Your task to perform on an android device: add a contact Image 0: 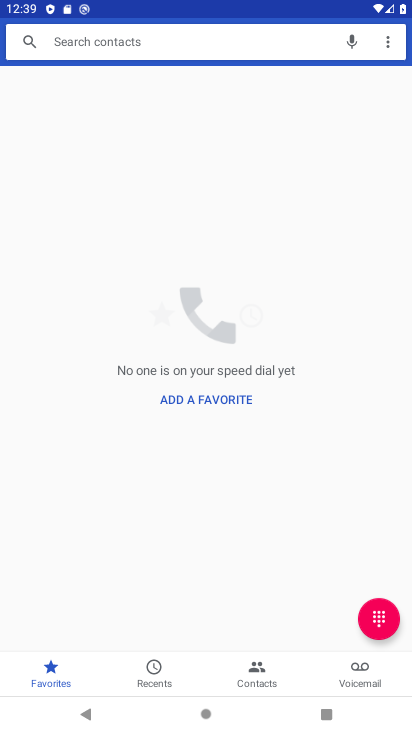
Step 0: press back button
Your task to perform on an android device: add a contact Image 1: 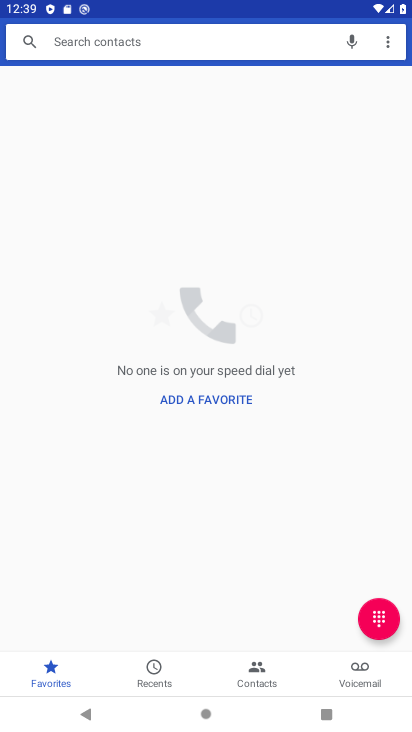
Step 1: press back button
Your task to perform on an android device: add a contact Image 2: 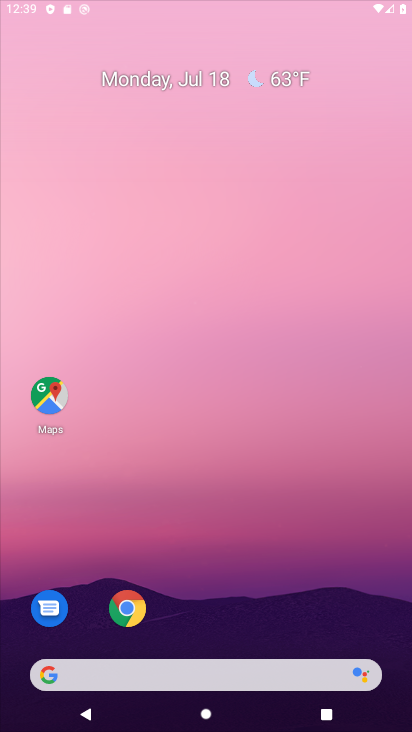
Step 2: press back button
Your task to perform on an android device: add a contact Image 3: 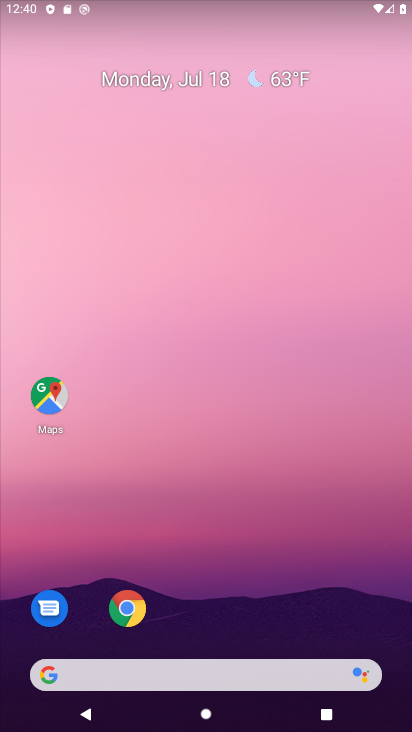
Step 3: drag from (251, 631) to (152, 69)
Your task to perform on an android device: add a contact Image 4: 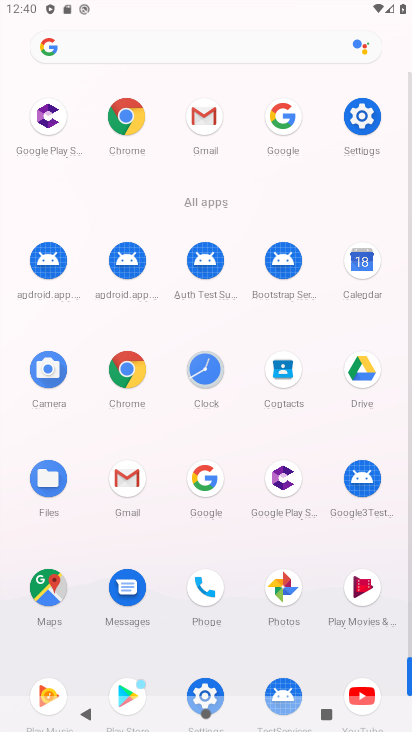
Step 4: drag from (174, 625) to (226, 78)
Your task to perform on an android device: add a contact Image 5: 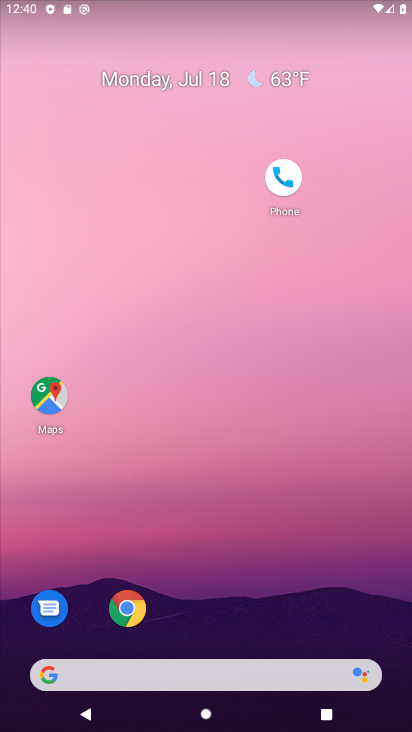
Step 5: drag from (152, 6) to (178, 78)
Your task to perform on an android device: add a contact Image 6: 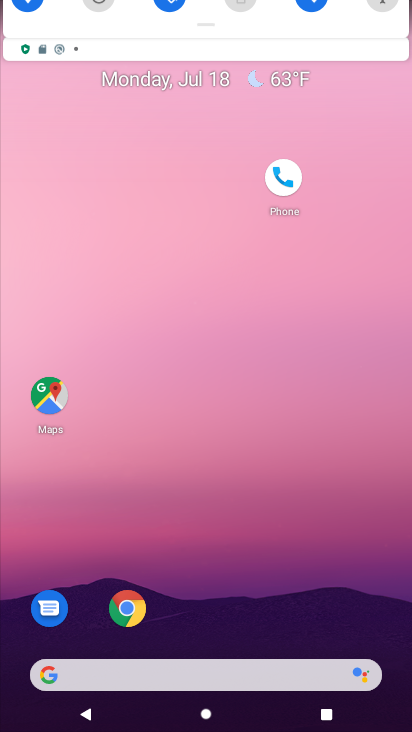
Step 6: drag from (159, 592) to (109, 168)
Your task to perform on an android device: add a contact Image 7: 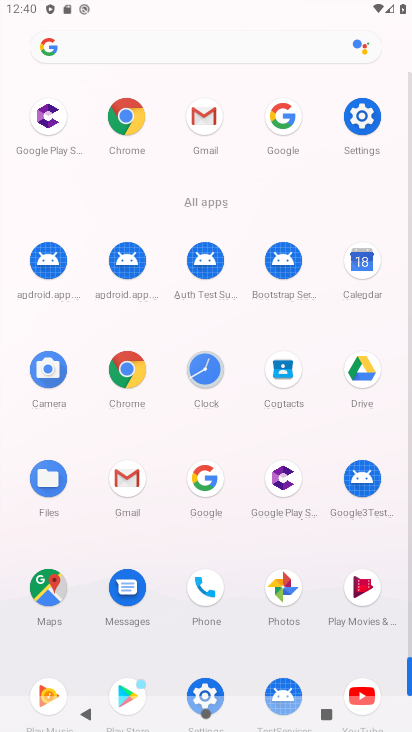
Step 7: click (293, 382)
Your task to perform on an android device: add a contact Image 8: 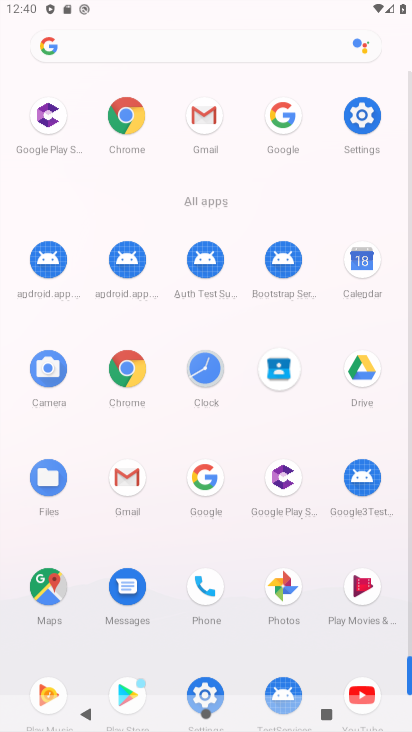
Step 8: drag from (122, 163) to (186, 84)
Your task to perform on an android device: add a contact Image 9: 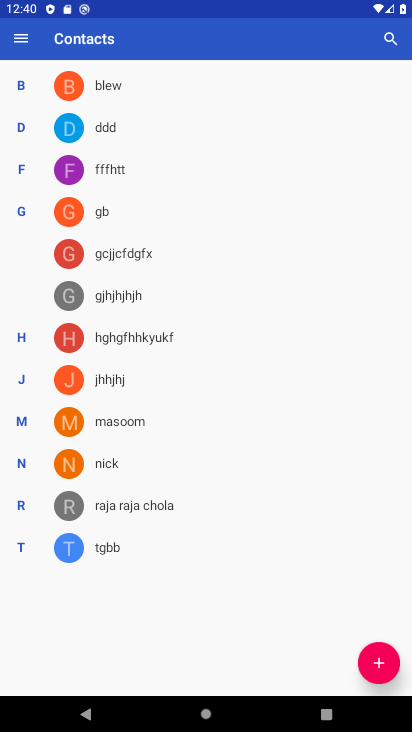
Step 9: click (123, 290)
Your task to perform on an android device: add a contact Image 10: 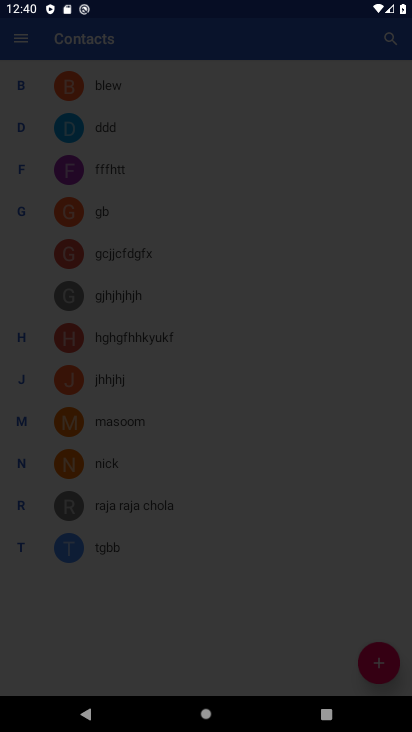
Step 10: click (240, 120)
Your task to perform on an android device: add a contact Image 11: 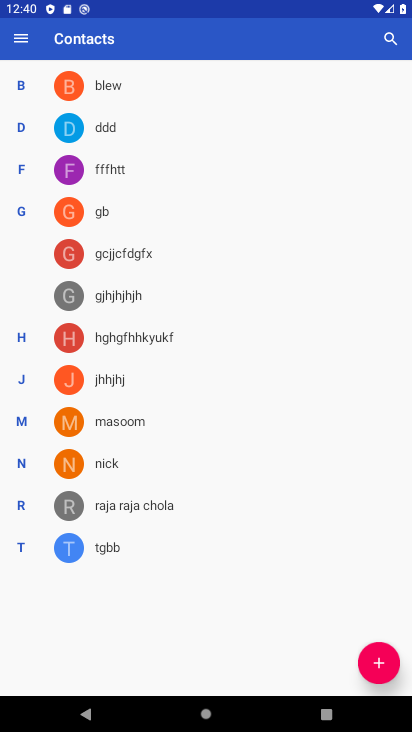
Step 11: click (280, 373)
Your task to perform on an android device: add a contact Image 12: 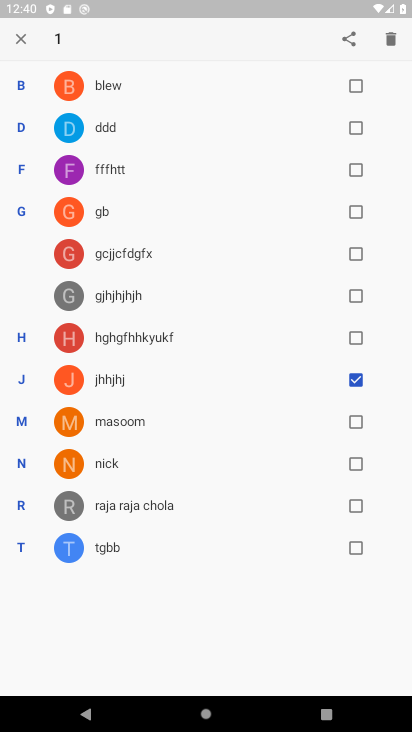
Step 12: click (290, 373)
Your task to perform on an android device: add a contact Image 13: 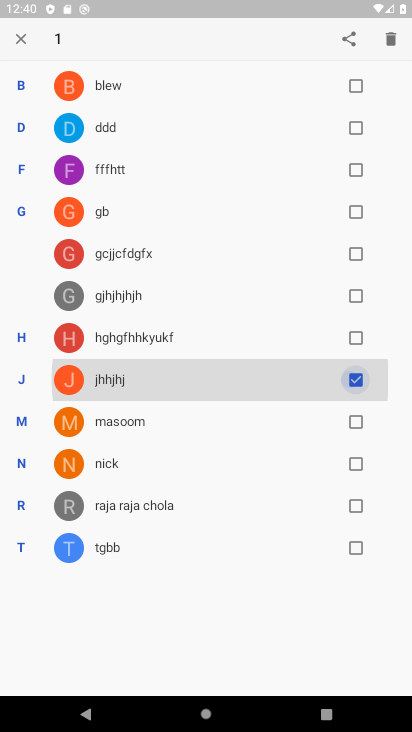
Step 13: click (285, 369)
Your task to perform on an android device: add a contact Image 14: 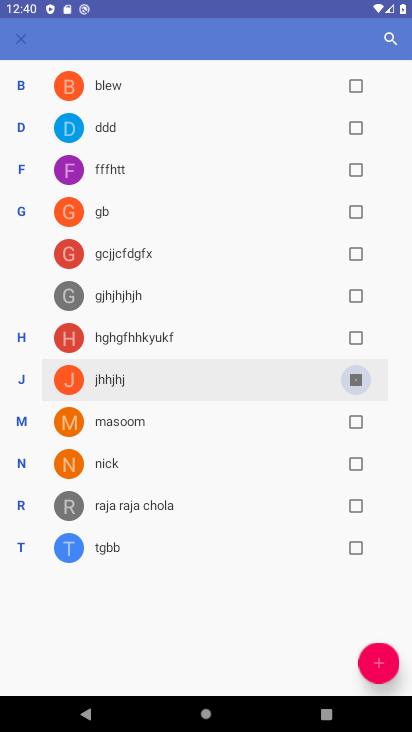
Step 14: click (293, 370)
Your task to perform on an android device: add a contact Image 15: 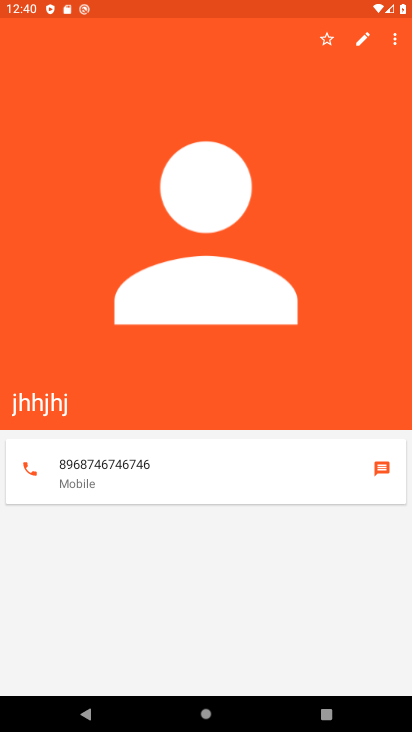
Step 15: click (277, 357)
Your task to perform on an android device: add a contact Image 16: 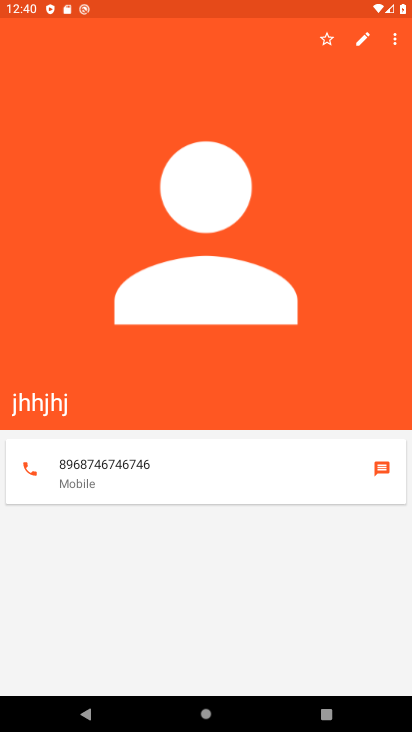
Step 16: click (370, 656)
Your task to perform on an android device: add a contact Image 17: 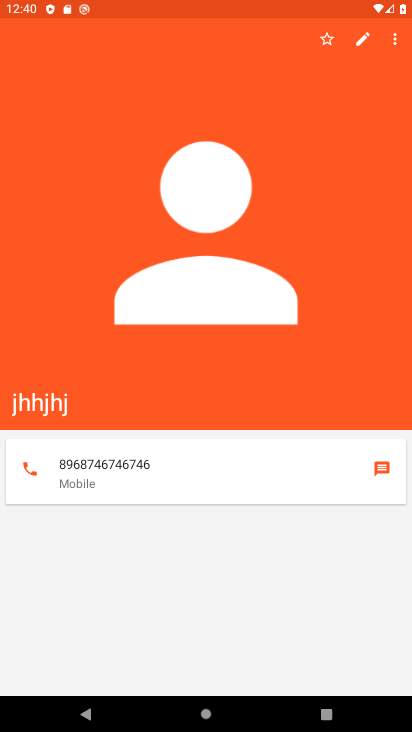
Step 17: click (374, 662)
Your task to perform on an android device: add a contact Image 18: 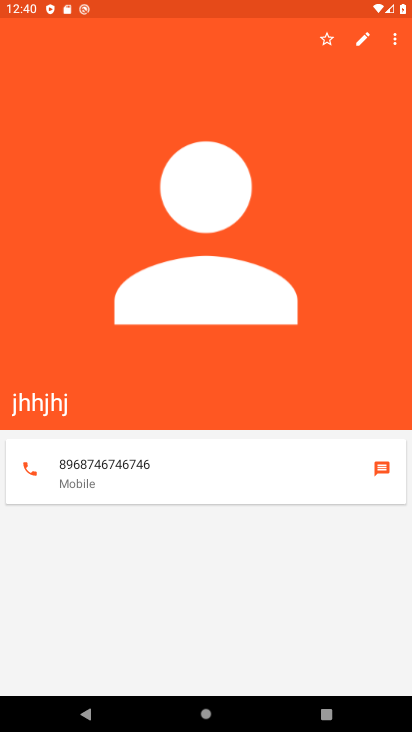
Step 18: drag from (381, 682) to (370, 649)
Your task to perform on an android device: add a contact Image 19: 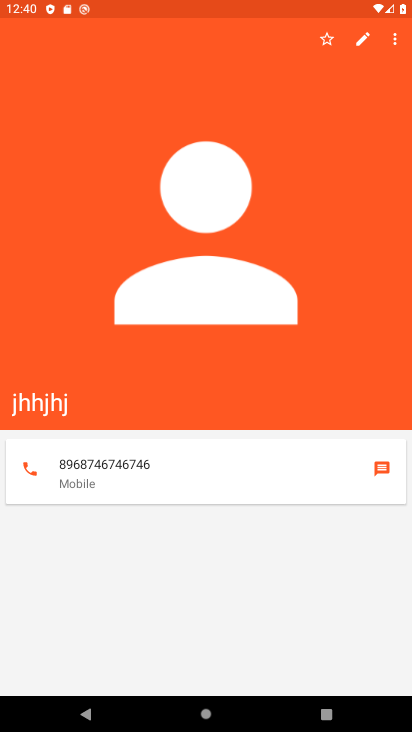
Step 19: click (380, 658)
Your task to perform on an android device: add a contact Image 20: 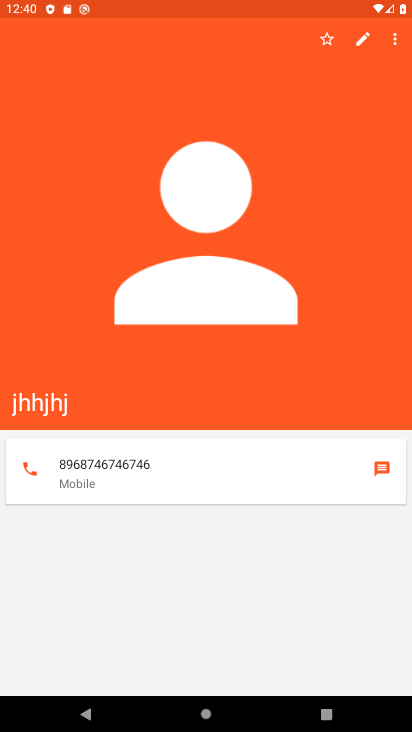
Step 20: click (385, 660)
Your task to perform on an android device: add a contact Image 21: 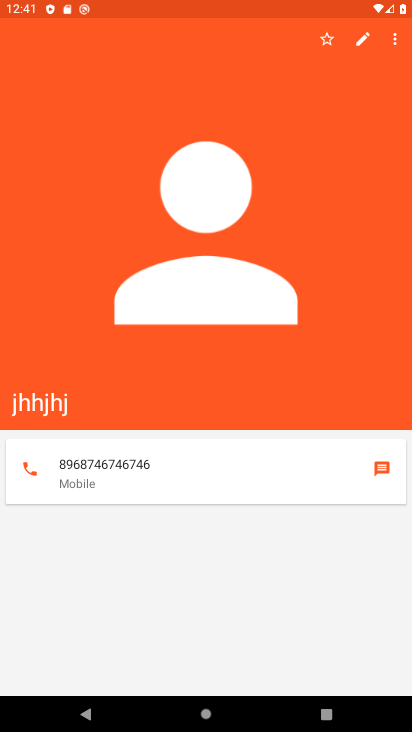
Step 21: click (351, 369)
Your task to perform on an android device: add a contact Image 22: 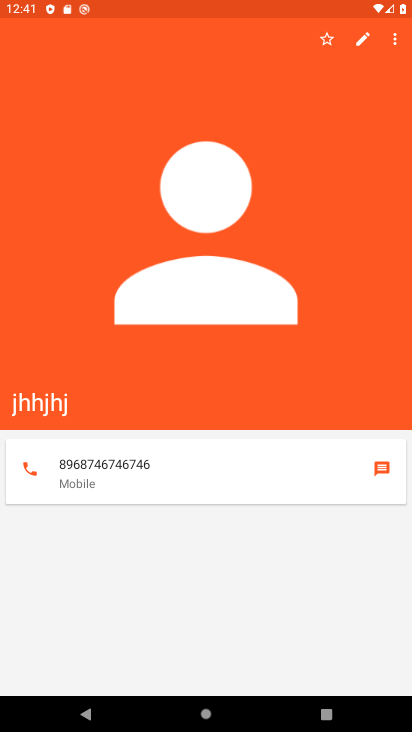
Step 22: task complete